Your task to perform on an android device: turn off data saver in the chrome app Image 0: 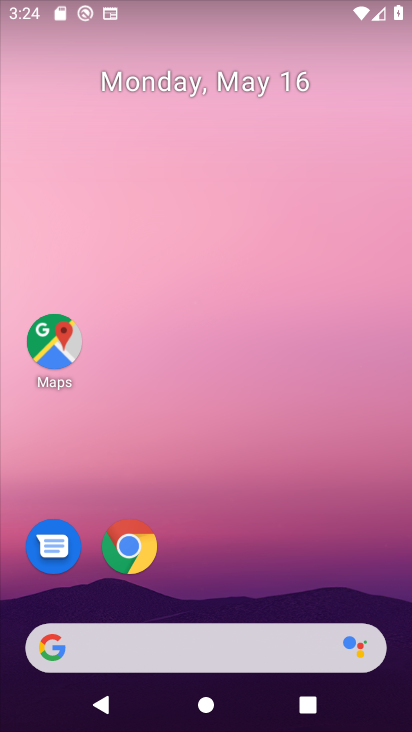
Step 0: drag from (377, 563) to (371, 135)
Your task to perform on an android device: turn off data saver in the chrome app Image 1: 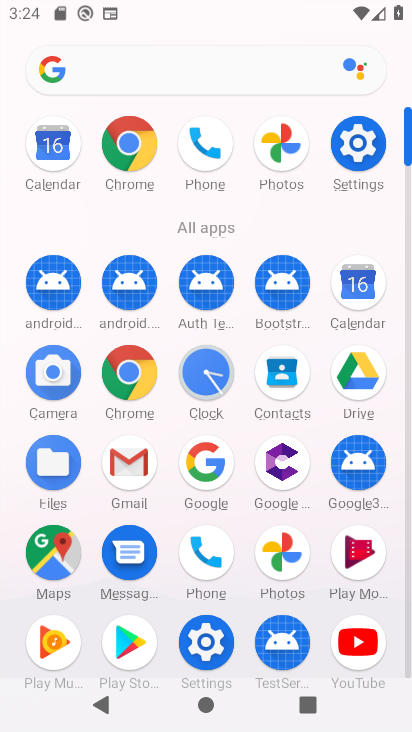
Step 1: click (133, 376)
Your task to perform on an android device: turn off data saver in the chrome app Image 2: 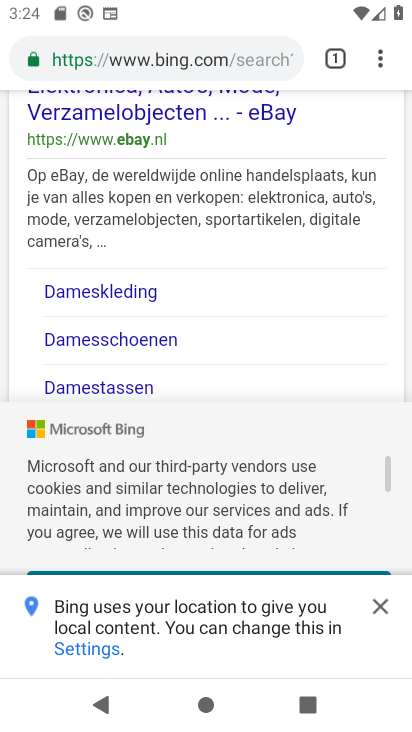
Step 2: click (380, 63)
Your task to perform on an android device: turn off data saver in the chrome app Image 3: 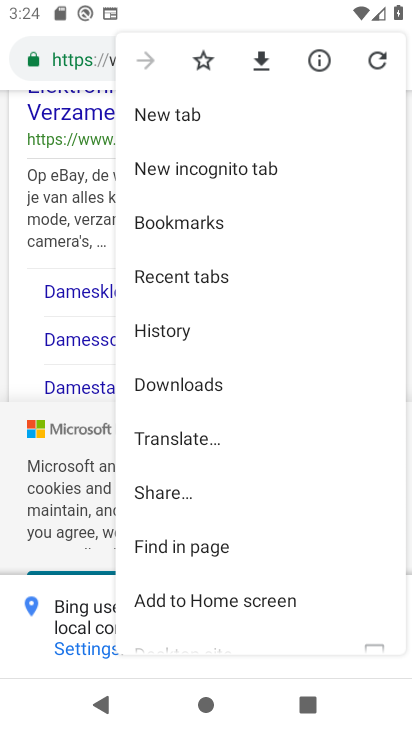
Step 3: drag from (272, 519) to (298, 400)
Your task to perform on an android device: turn off data saver in the chrome app Image 4: 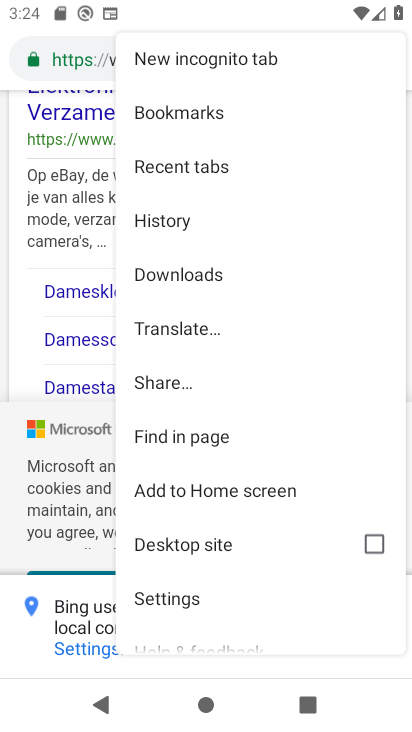
Step 4: drag from (311, 583) to (321, 415)
Your task to perform on an android device: turn off data saver in the chrome app Image 5: 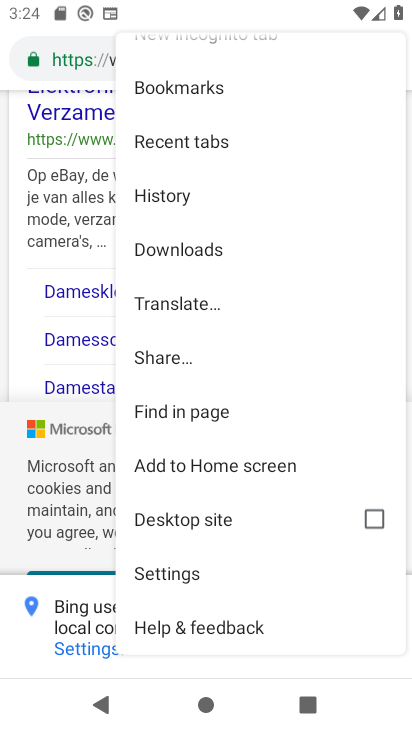
Step 5: click (185, 583)
Your task to perform on an android device: turn off data saver in the chrome app Image 6: 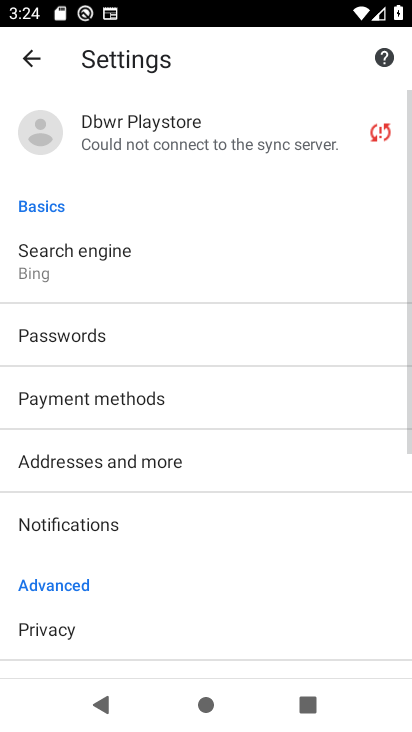
Step 6: drag from (280, 587) to (293, 428)
Your task to perform on an android device: turn off data saver in the chrome app Image 7: 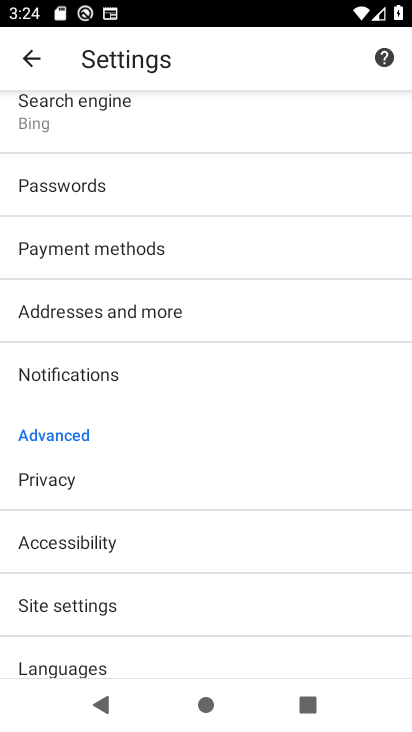
Step 7: drag from (269, 596) to (277, 447)
Your task to perform on an android device: turn off data saver in the chrome app Image 8: 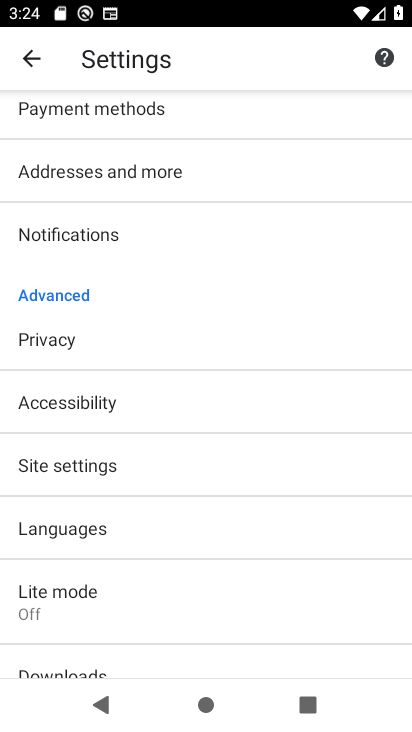
Step 8: drag from (282, 594) to (300, 507)
Your task to perform on an android device: turn off data saver in the chrome app Image 9: 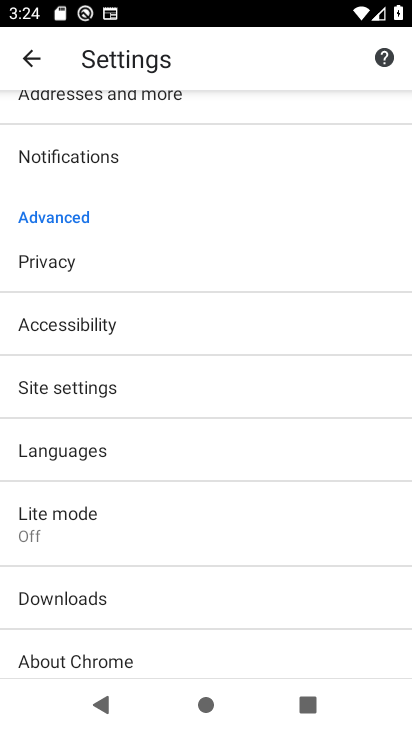
Step 9: drag from (314, 620) to (316, 477)
Your task to perform on an android device: turn off data saver in the chrome app Image 10: 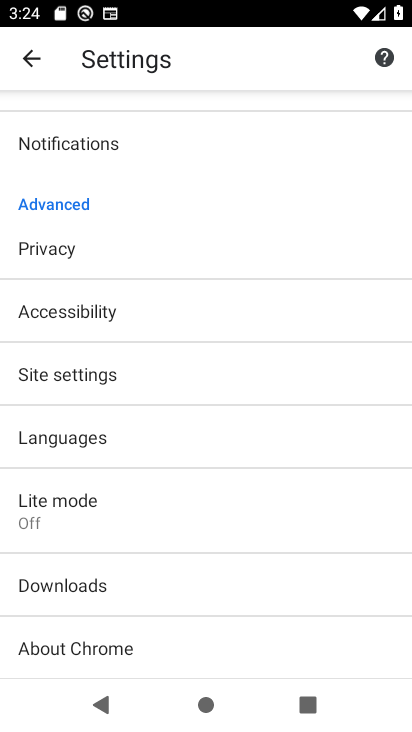
Step 10: drag from (309, 324) to (312, 422)
Your task to perform on an android device: turn off data saver in the chrome app Image 11: 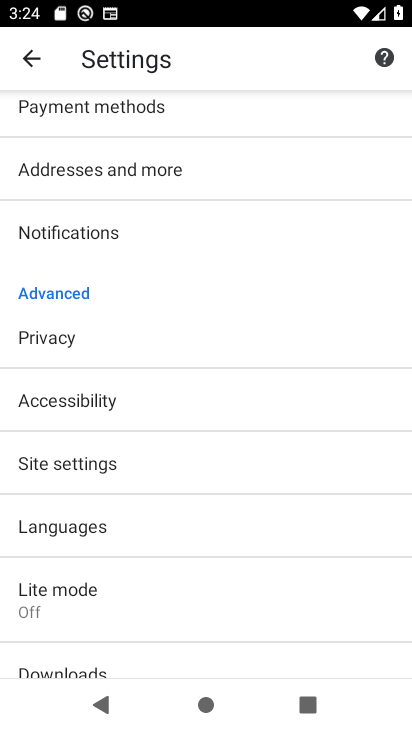
Step 11: drag from (320, 275) to (326, 424)
Your task to perform on an android device: turn off data saver in the chrome app Image 12: 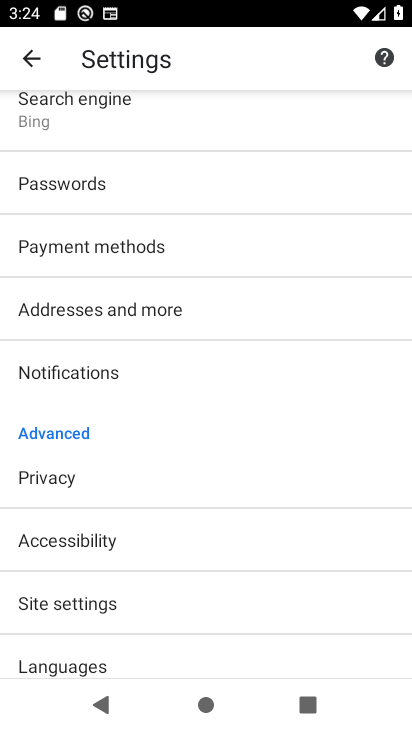
Step 12: drag from (333, 244) to (303, 490)
Your task to perform on an android device: turn off data saver in the chrome app Image 13: 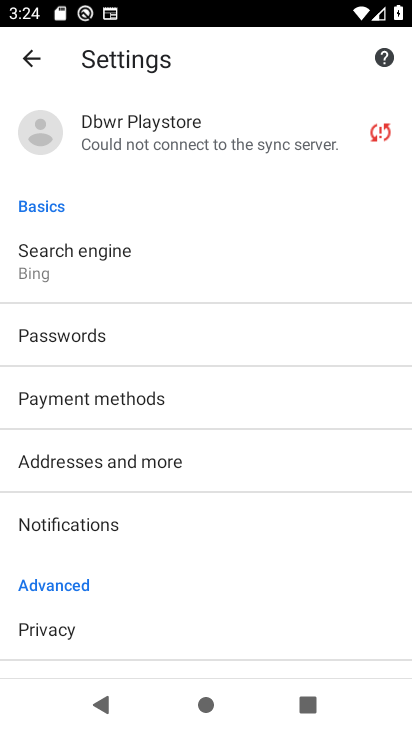
Step 13: drag from (311, 559) to (311, 355)
Your task to perform on an android device: turn off data saver in the chrome app Image 14: 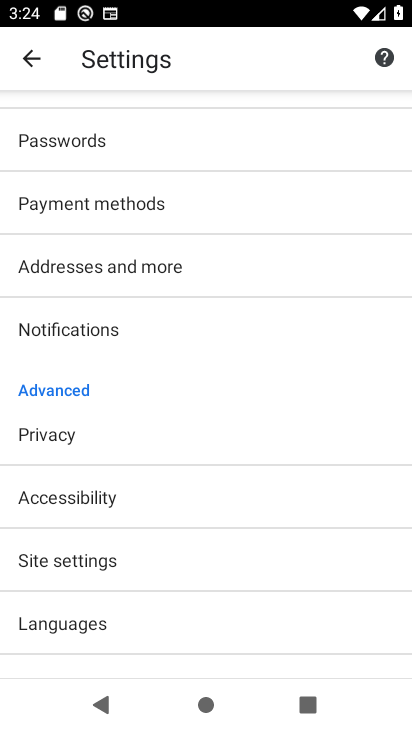
Step 14: drag from (270, 608) to (291, 429)
Your task to perform on an android device: turn off data saver in the chrome app Image 15: 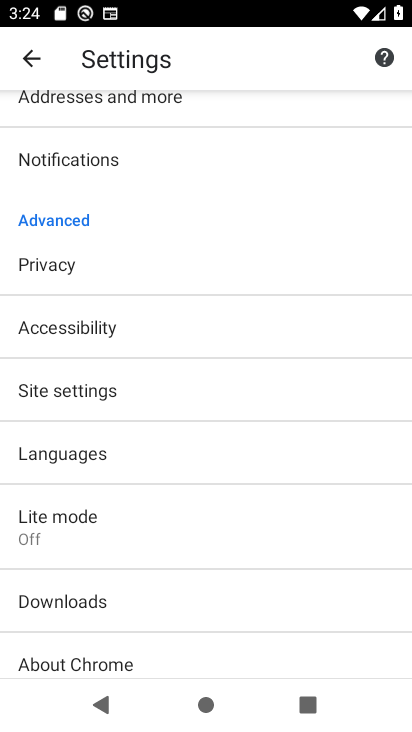
Step 15: click (239, 525)
Your task to perform on an android device: turn off data saver in the chrome app Image 16: 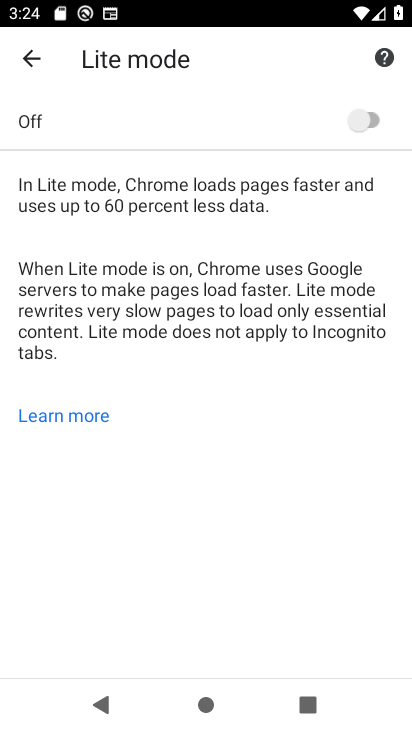
Step 16: task complete